Your task to perform on an android device: Open Google Chrome and open the bookmarks view Image 0: 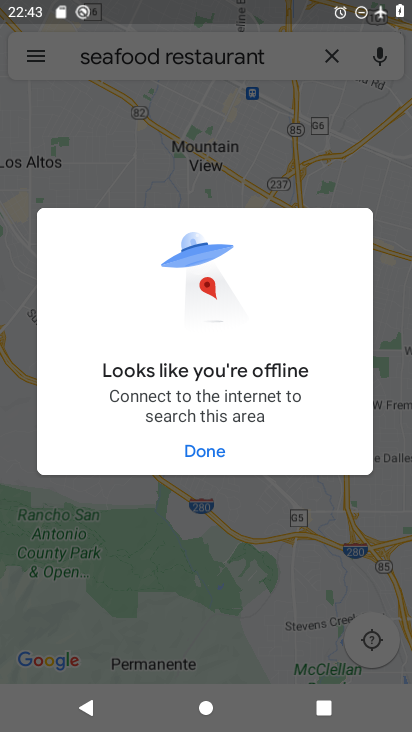
Step 0: press home button
Your task to perform on an android device: Open Google Chrome and open the bookmarks view Image 1: 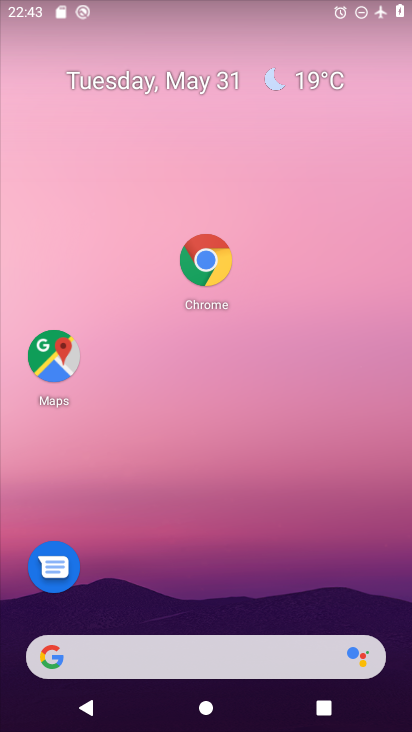
Step 1: click (208, 270)
Your task to perform on an android device: Open Google Chrome and open the bookmarks view Image 2: 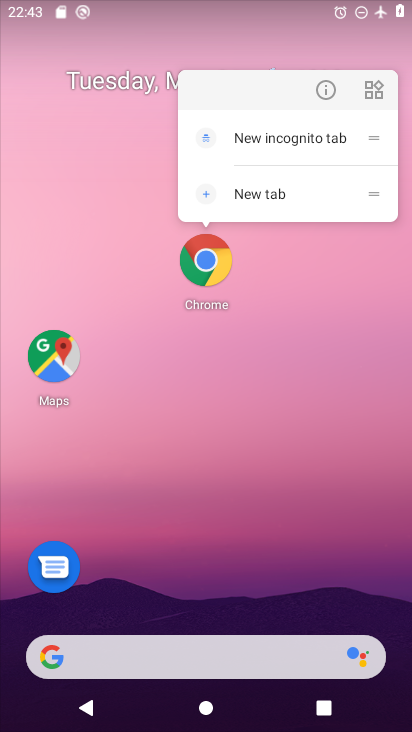
Step 2: click (222, 195)
Your task to perform on an android device: Open Google Chrome and open the bookmarks view Image 3: 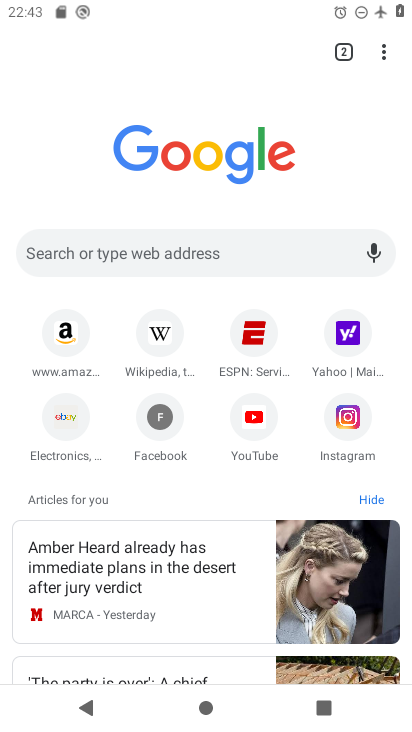
Step 3: click (388, 62)
Your task to perform on an android device: Open Google Chrome and open the bookmarks view Image 4: 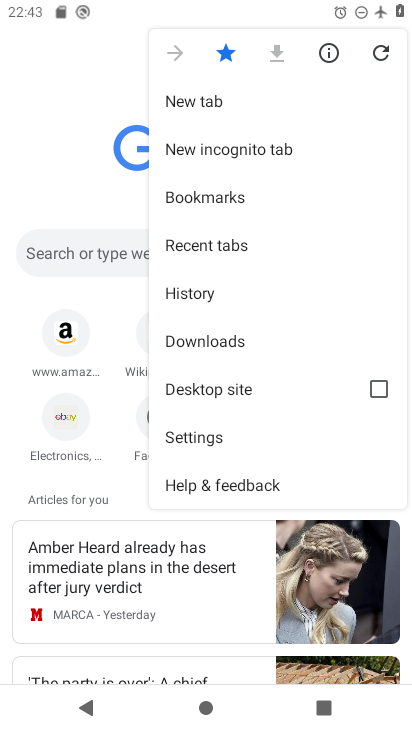
Step 4: click (186, 194)
Your task to perform on an android device: Open Google Chrome and open the bookmarks view Image 5: 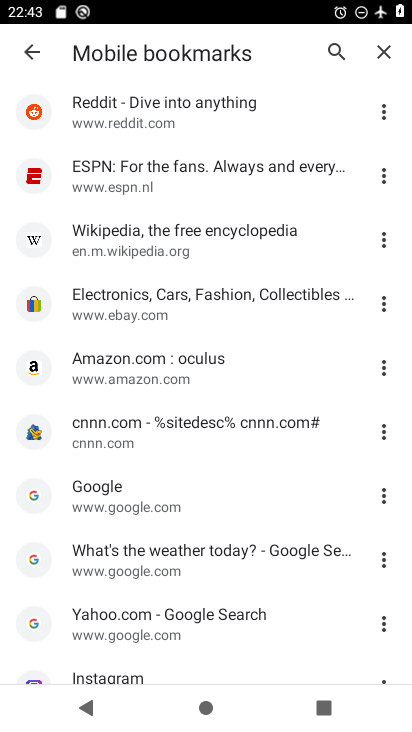
Step 5: task complete